Your task to perform on an android device: set the timer Image 0: 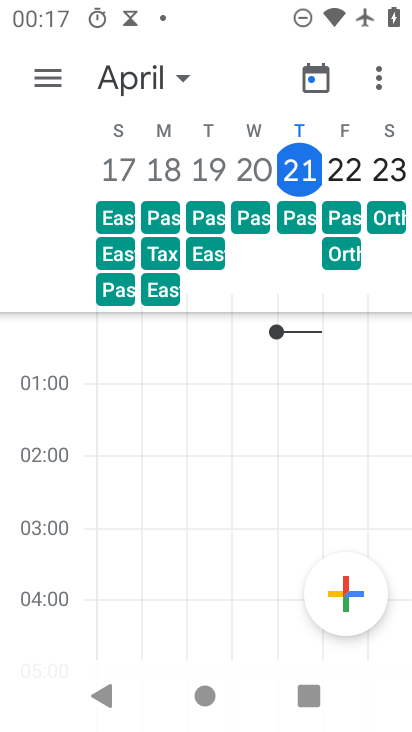
Step 0: press back button
Your task to perform on an android device: set the timer Image 1: 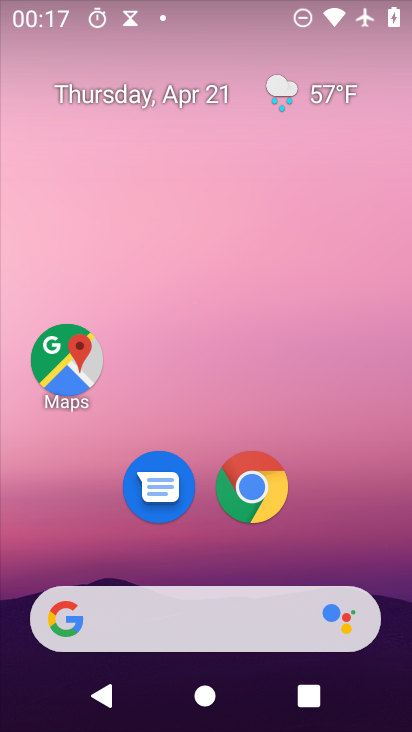
Step 1: drag from (369, 518) to (228, 14)
Your task to perform on an android device: set the timer Image 2: 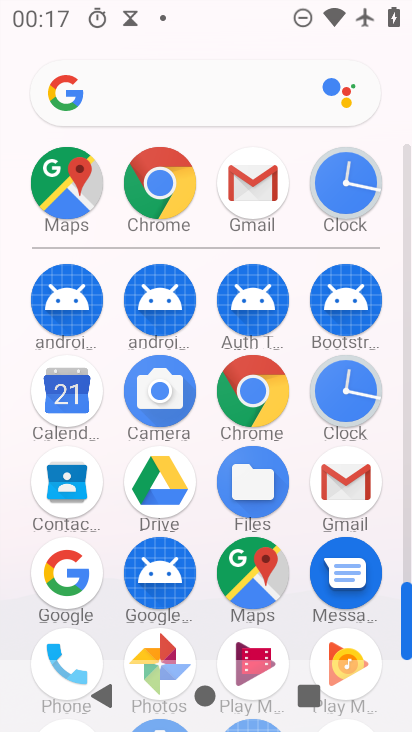
Step 2: click (347, 387)
Your task to perform on an android device: set the timer Image 3: 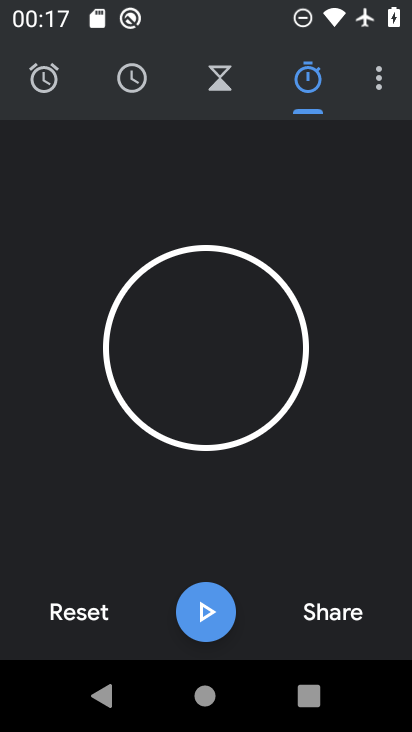
Step 3: click (205, 52)
Your task to perform on an android device: set the timer Image 4: 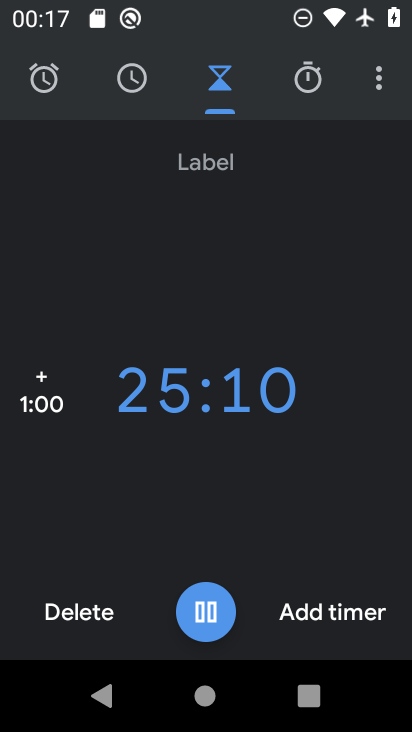
Step 4: click (341, 607)
Your task to perform on an android device: set the timer Image 5: 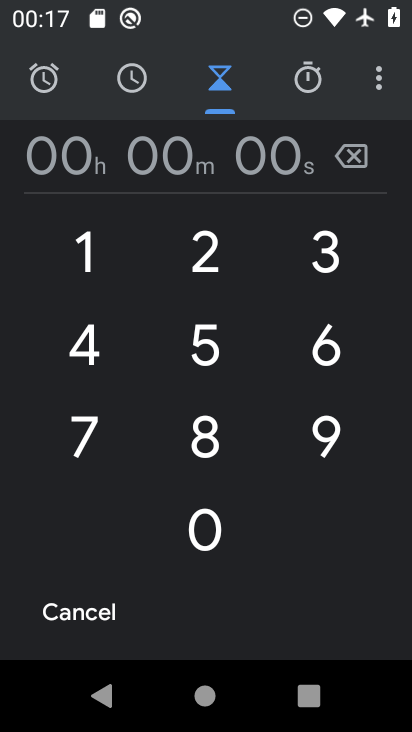
Step 5: click (323, 359)
Your task to perform on an android device: set the timer Image 6: 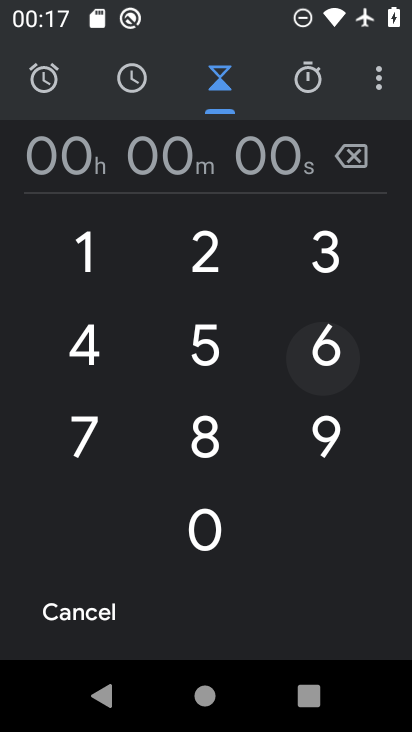
Step 6: click (220, 350)
Your task to perform on an android device: set the timer Image 7: 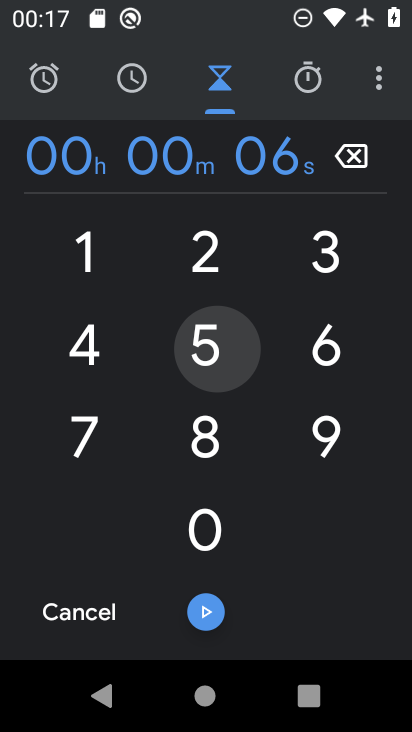
Step 7: click (211, 241)
Your task to perform on an android device: set the timer Image 8: 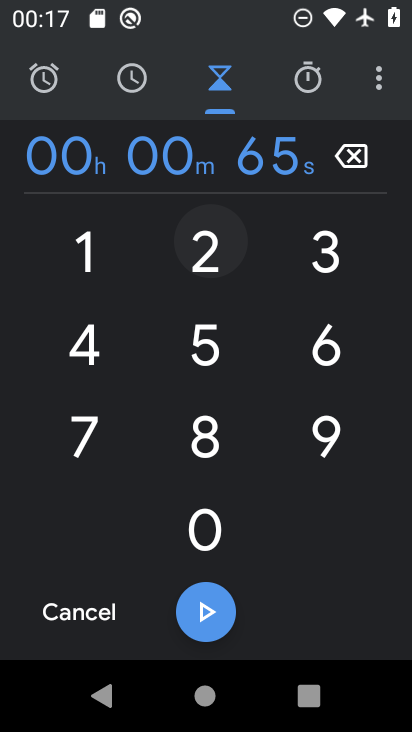
Step 8: click (293, 240)
Your task to perform on an android device: set the timer Image 9: 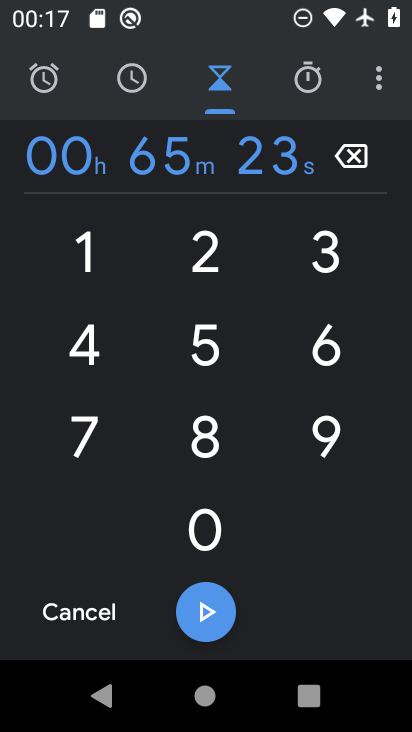
Step 9: click (104, 423)
Your task to perform on an android device: set the timer Image 10: 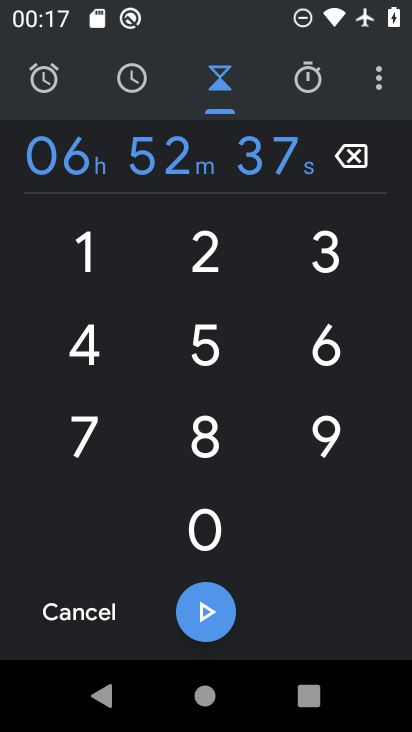
Step 10: click (218, 635)
Your task to perform on an android device: set the timer Image 11: 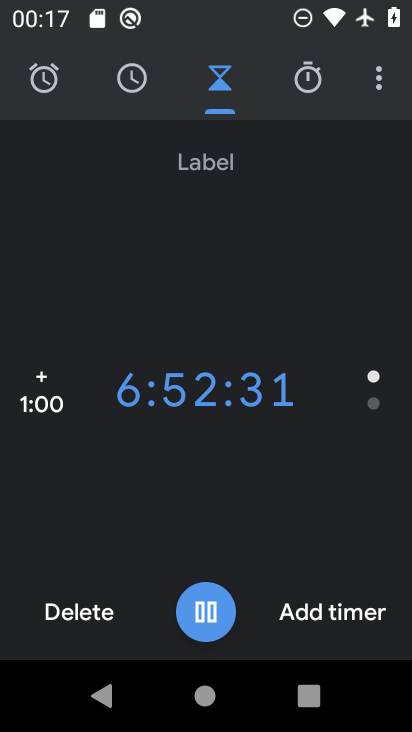
Step 11: task complete